Your task to perform on an android device: Open location settings Image 0: 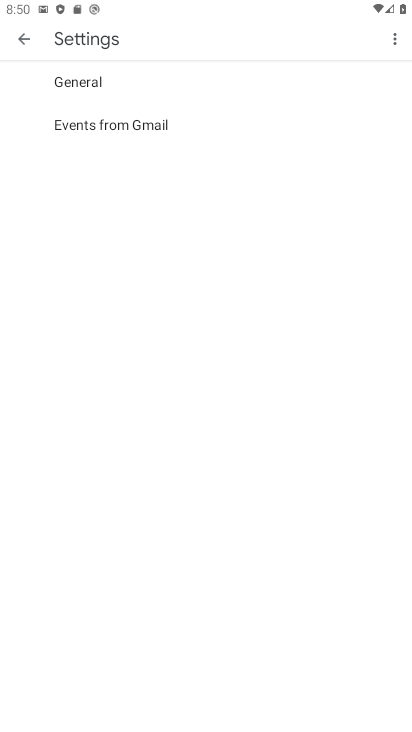
Step 0: press home button
Your task to perform on an android device: Open location settings Image 1: 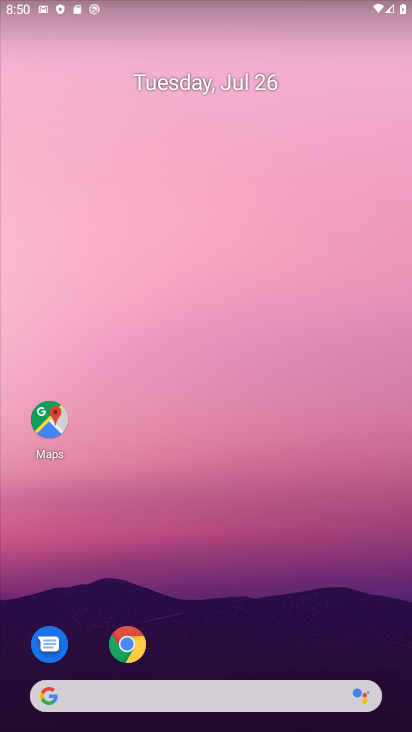
Step 1: drag from (236, 609) to (226, 169)
Your task to perform on an android device: Open location settings Image 2: 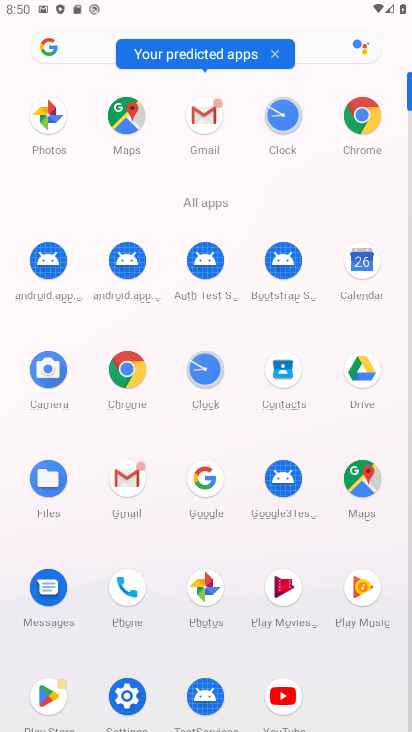
Step 2: click (120, 677)
Your task to perform on an android device: Open location settings Image 3: 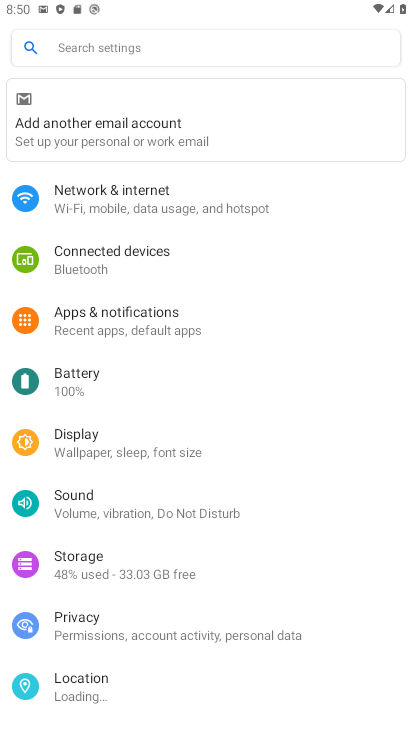
Step 3: click (82, 688)
Your task to perform on an android device: Open location settings Image 4: 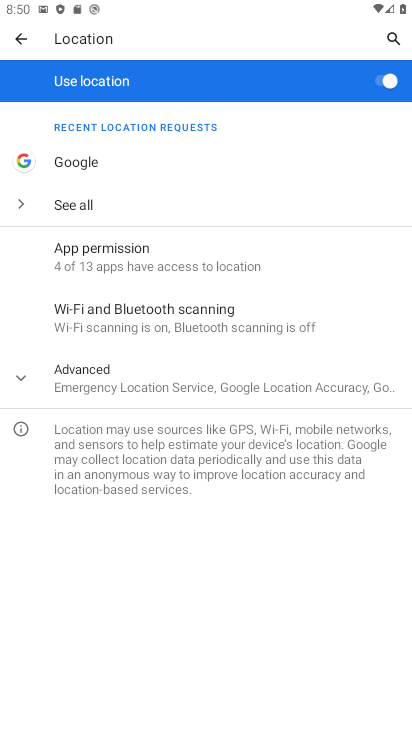
Step 4: task complete